Your task to perform on an android device: Open the calendar app, open the side menu, and click the "Day" option Image 0: 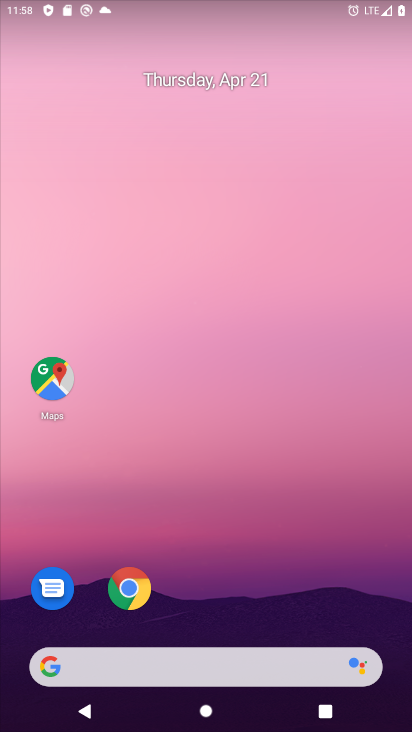
Step 0: drag from (259, 672) to (273, 49)
Your task to perform on an android device: Open the calendar app, open the side menu, and click the "Day" option Image 1: 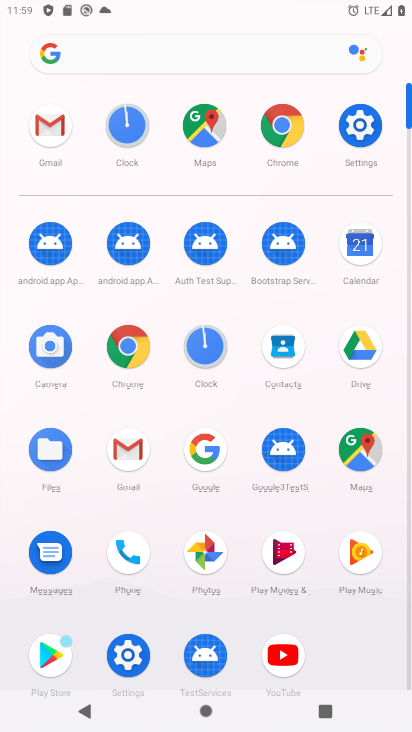
Step 1: click (368, 242)
Your task to perform on an android device: Open the calendar app, open the side menu, and click the "Day" option Image 2: 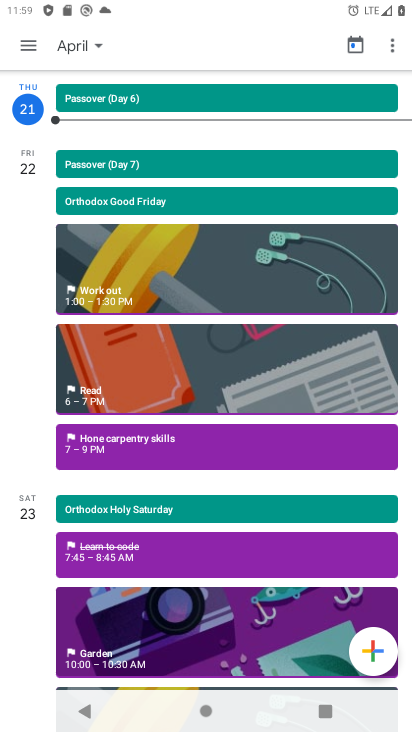
Step 2: click (26, 62)
Your task to perform on an android device: Open the calendar app, open the side menu, and click the "Day" option Image 3: 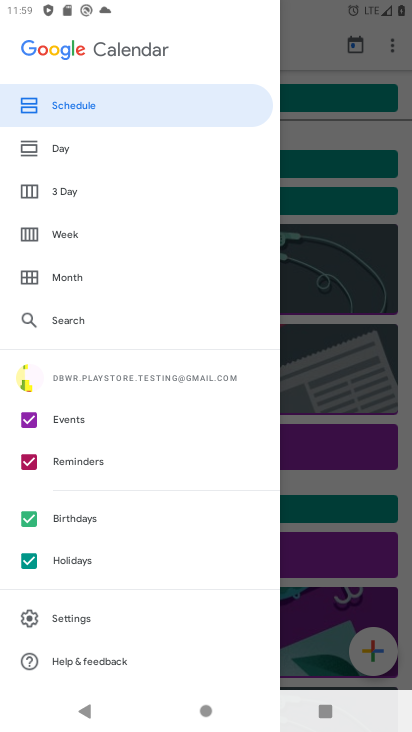
Step 3: click (74, 151)
Your task to perform on an android device: Open the calendar app, open the side menu, and click the "Day" option Image 4: 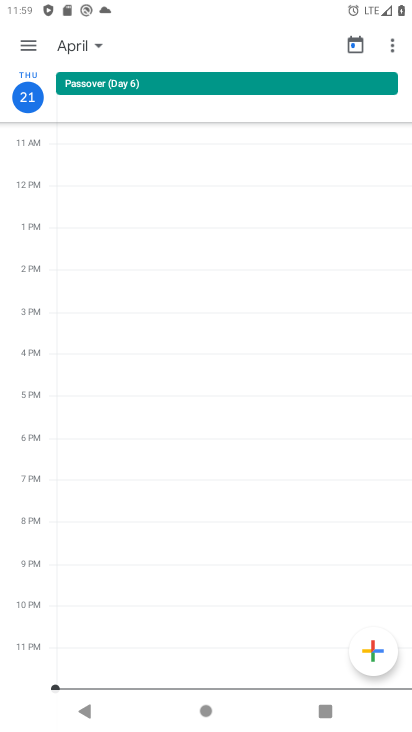
Step 4: task complete